Your task to perform on an android device: What is the recent news? Image 0: 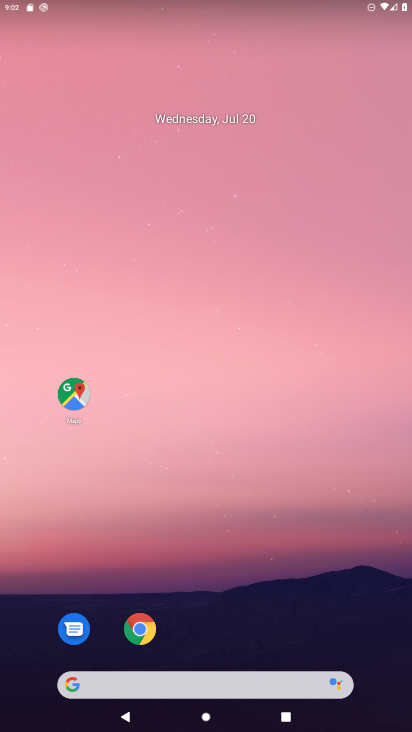
Step 0: drag from (5, 281) to (374, 355)
Your task to perform on an android device: What is the recent news? Image 1: 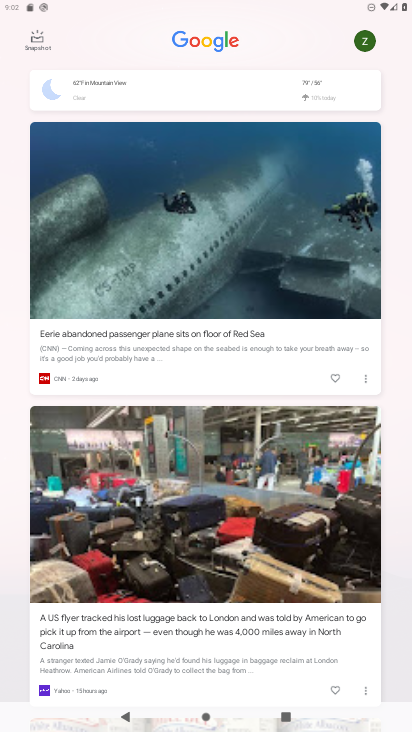
Step 1: task complete